Your task to perform on an android device: open app "YouTube Kids" Image 0: 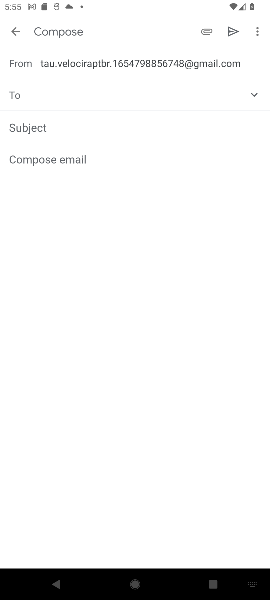
Step 0: press home button
Your task to perform on an android device: open app "YouTube Kids" Image 1: 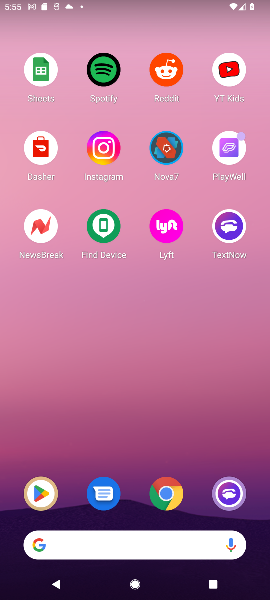
Step 1: click (226, 69)
Your task to perform on an android device: open app "YouTube Kids" Image 2: 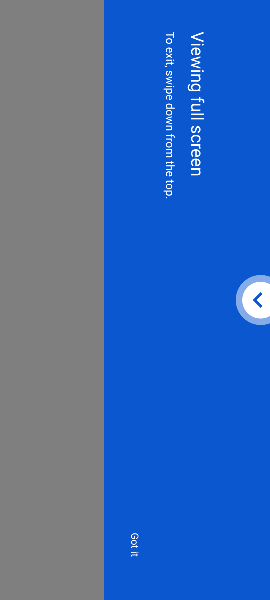
Step 2: click (134, 543)
Your task to perform on an android device: open app "YouTube Kids" Image 3: 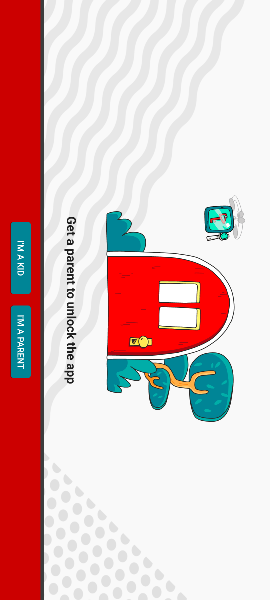
Step 3: task complete